Your task to perform on an android device: Go to Android settings Image 0: 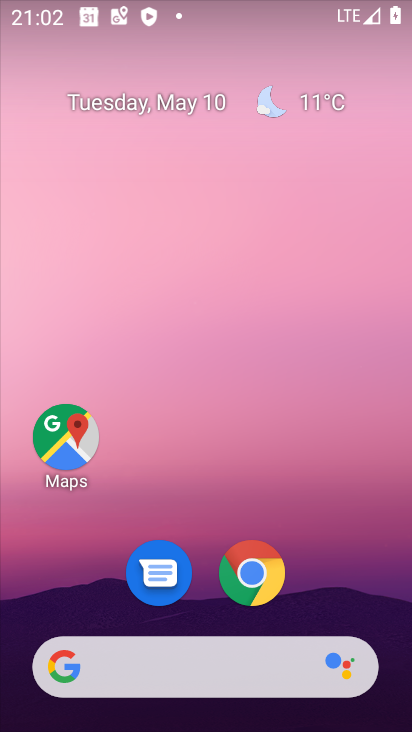
Step 0: drag from (343, 605) to (340, 10)
Your task to perform on an android device: Go to Android settings Image 1: 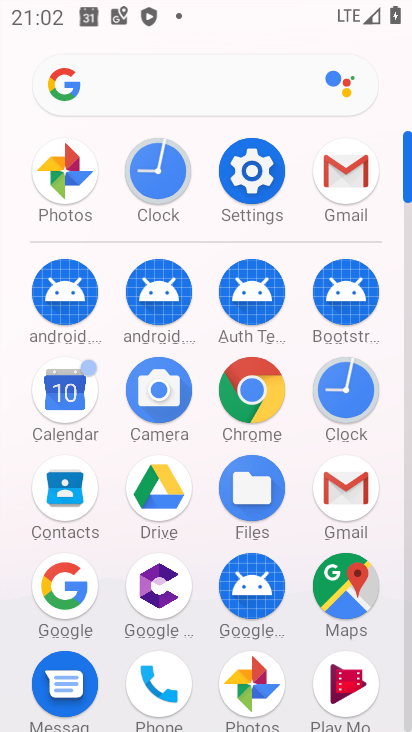
Step 1: click (254, 179)
Your task to perform on an android device: Go to Android settings Image 2: 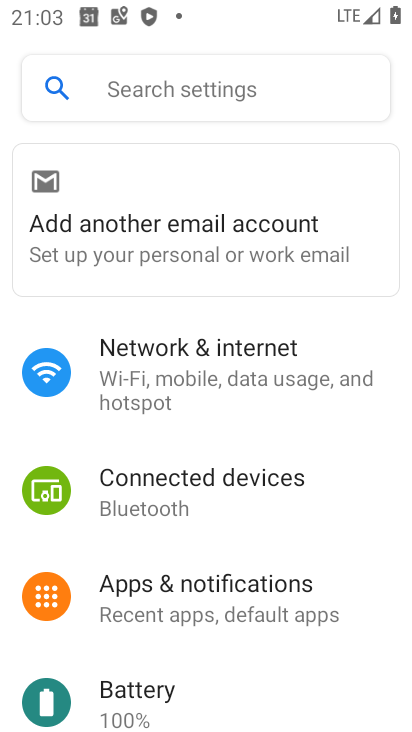
Step 2: task complete